Your task to perform on an android device: open app "Nova Launcher" (install if not already installed) Image 0: 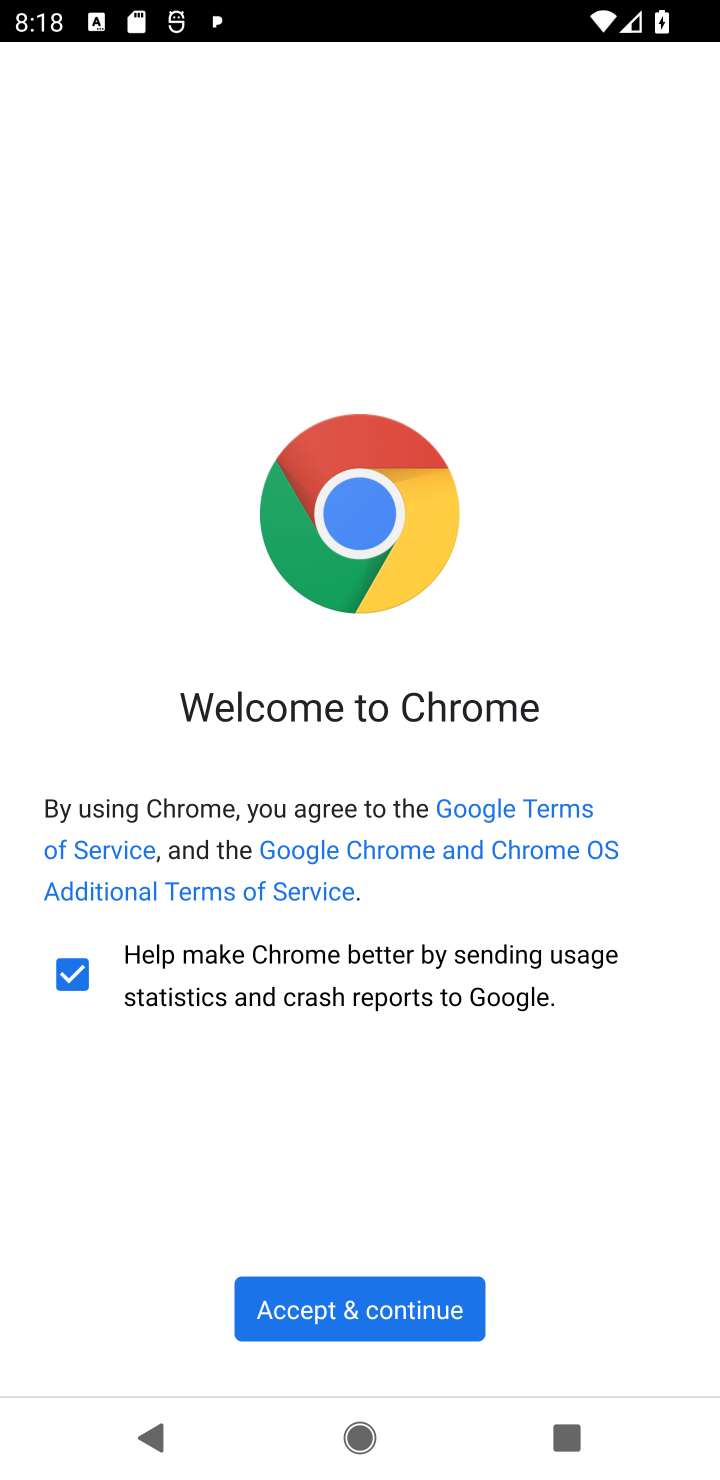
Step 0: press home button
Your task to perform on an android device: open app "Nova Launcher" (install if not already installed) Image 1: 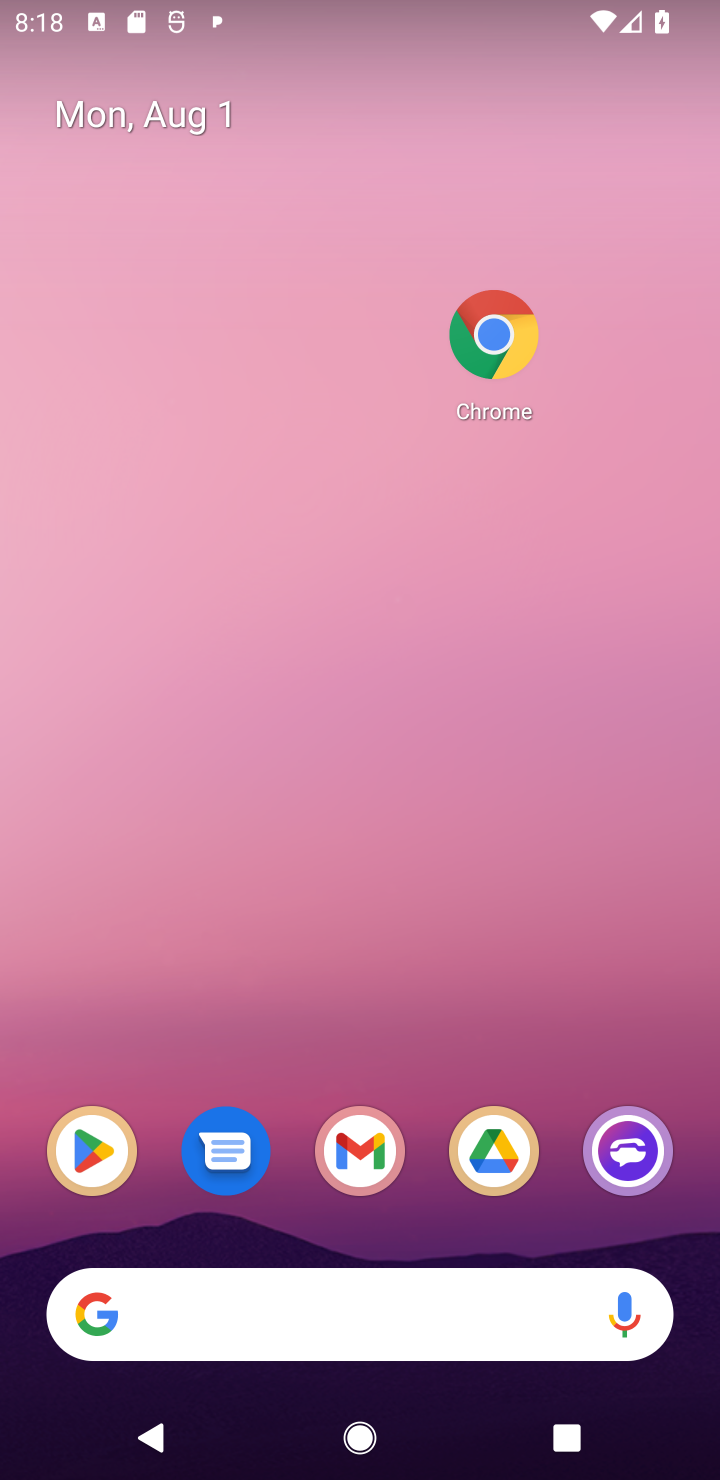
Step 1: click (103, 1155)
Your task to perform on an android device: open app "Nova Launcher" (install if not already installed) Image 2: 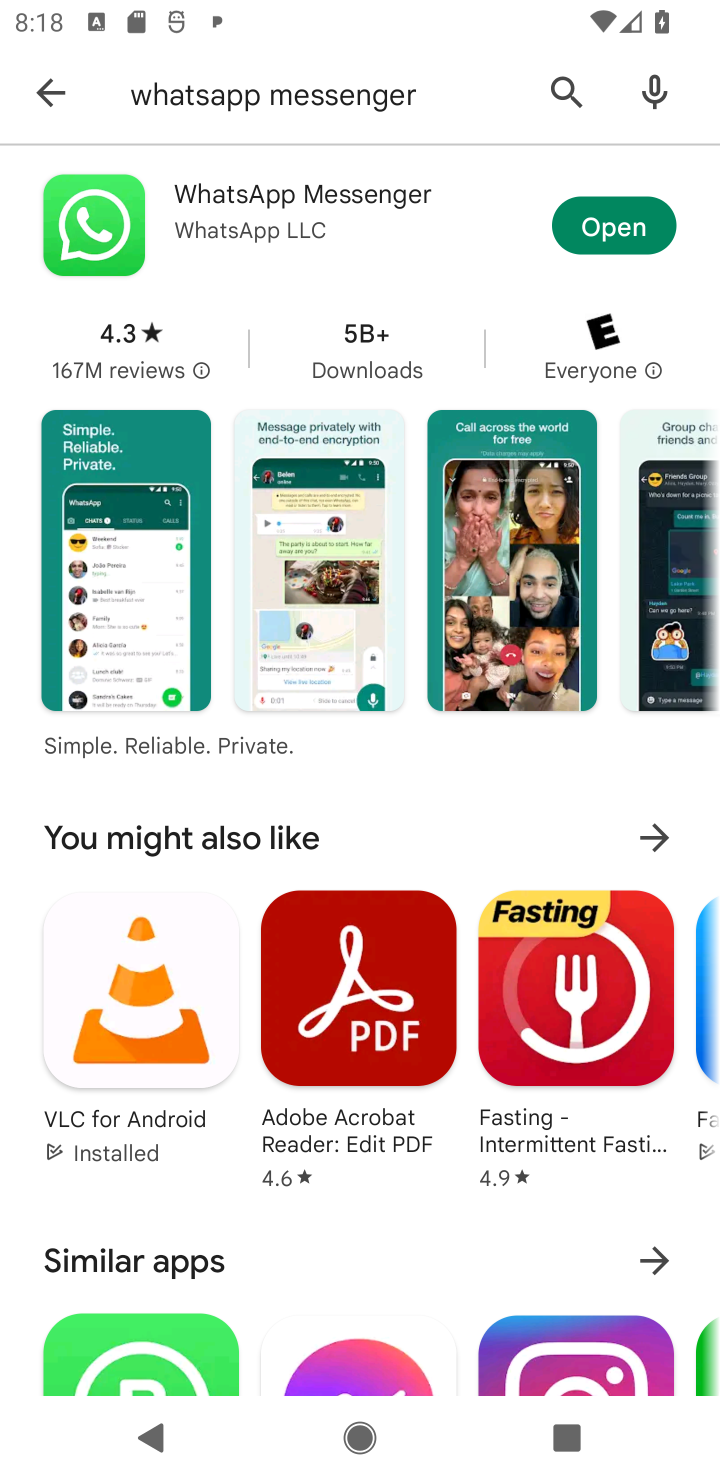
Step 2: click (579, 113)
Your task to perform on an android device: open app "Nova Launcher" (install if not already installed) Image 3: 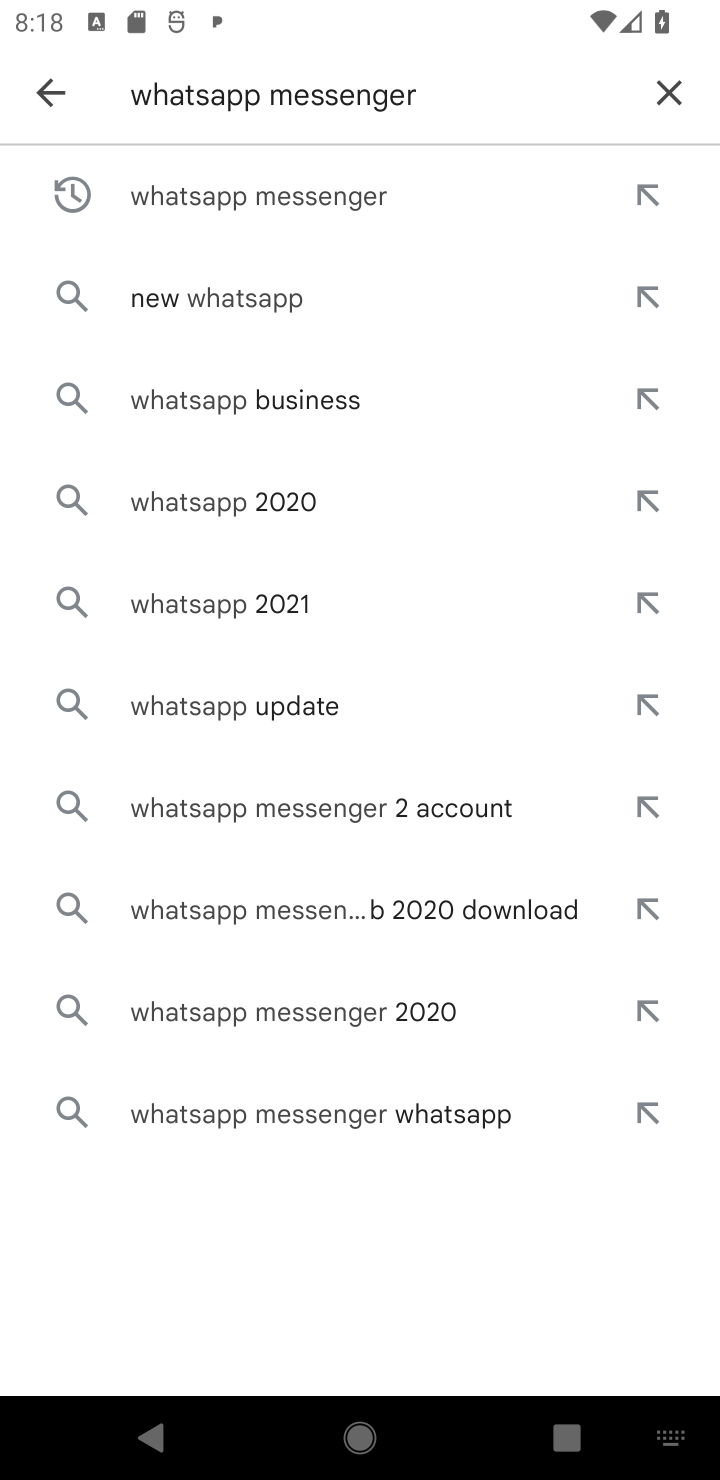
Step 3: click (658, 90)
Your task to perform on an android device: open app "Nova Launcher" (install if not already installed) Image 4: 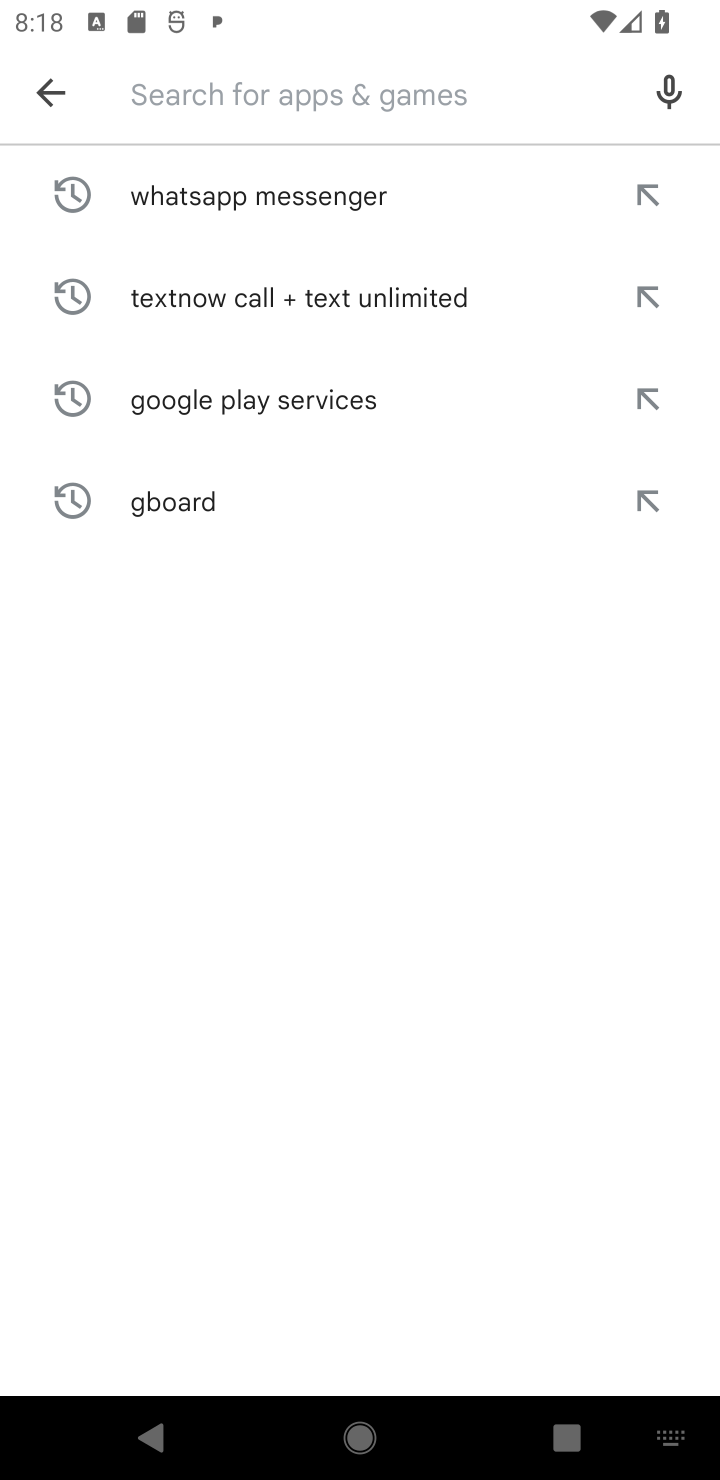
Step 4: type "Nova Launcher"
Your task to perform on an android device: open app "Nova Launcher" (install if not already installed) Image 5: 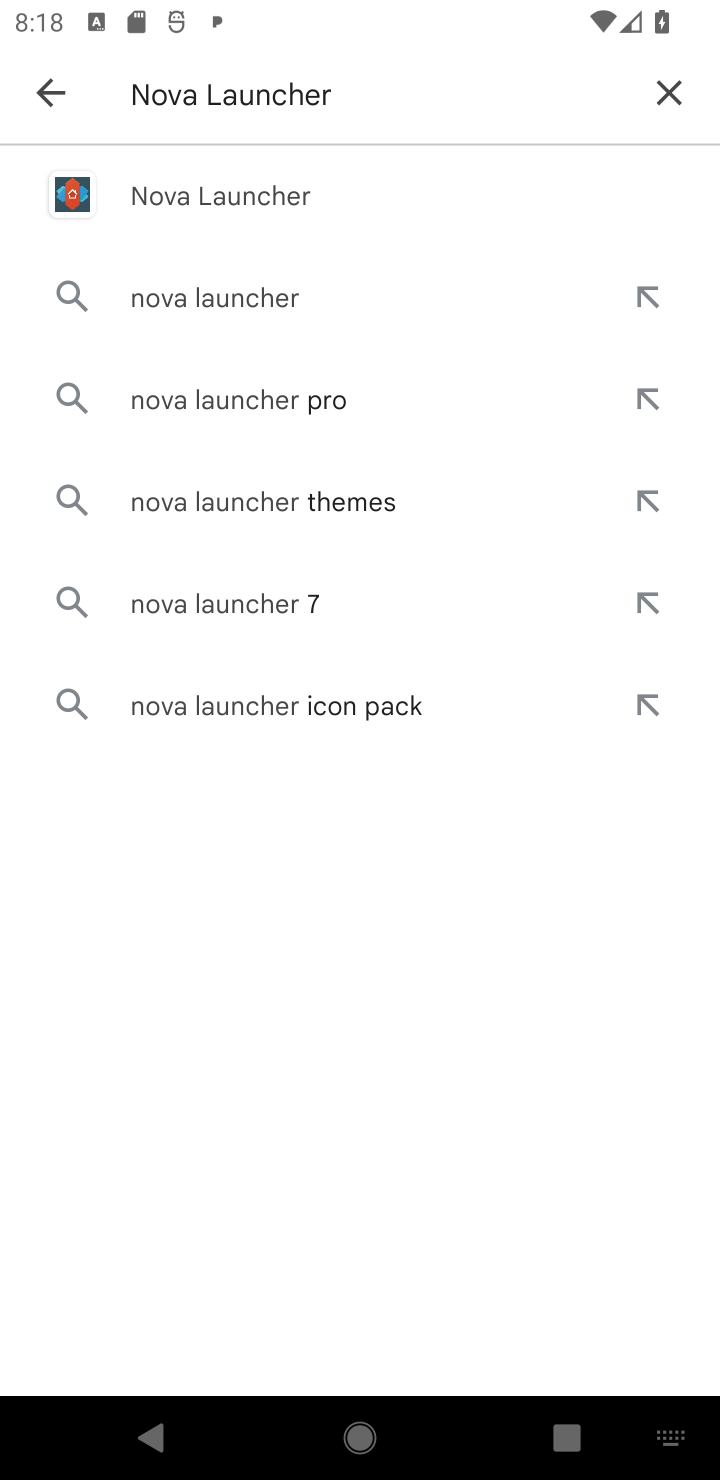
Step 5: click (283, 198)
Your task to perform on an android device: open app "Nova Launcher" (install if not already installed) Image 6: 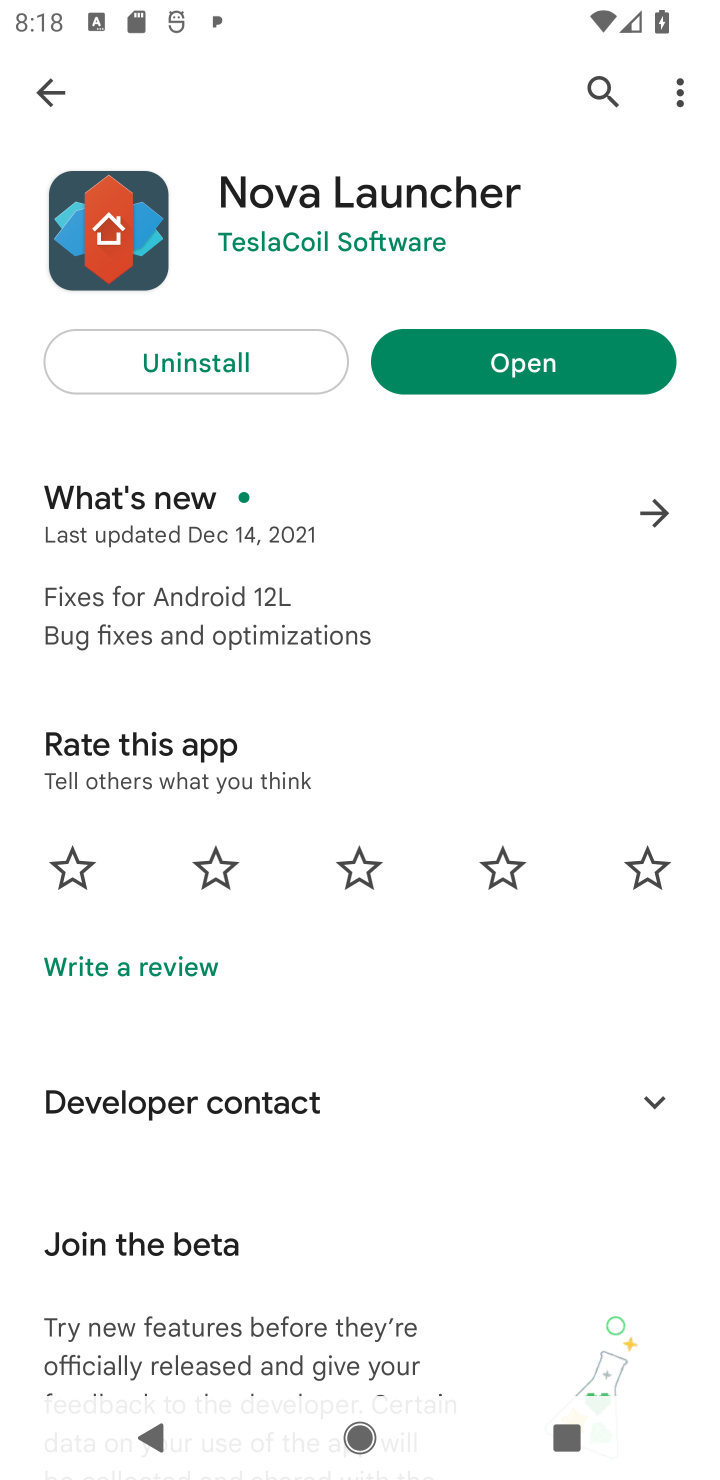
Step 6: click (545, 374)
Your task to perform on an android device: open app "Nova Launcher" (install if not already installed) Image 7: 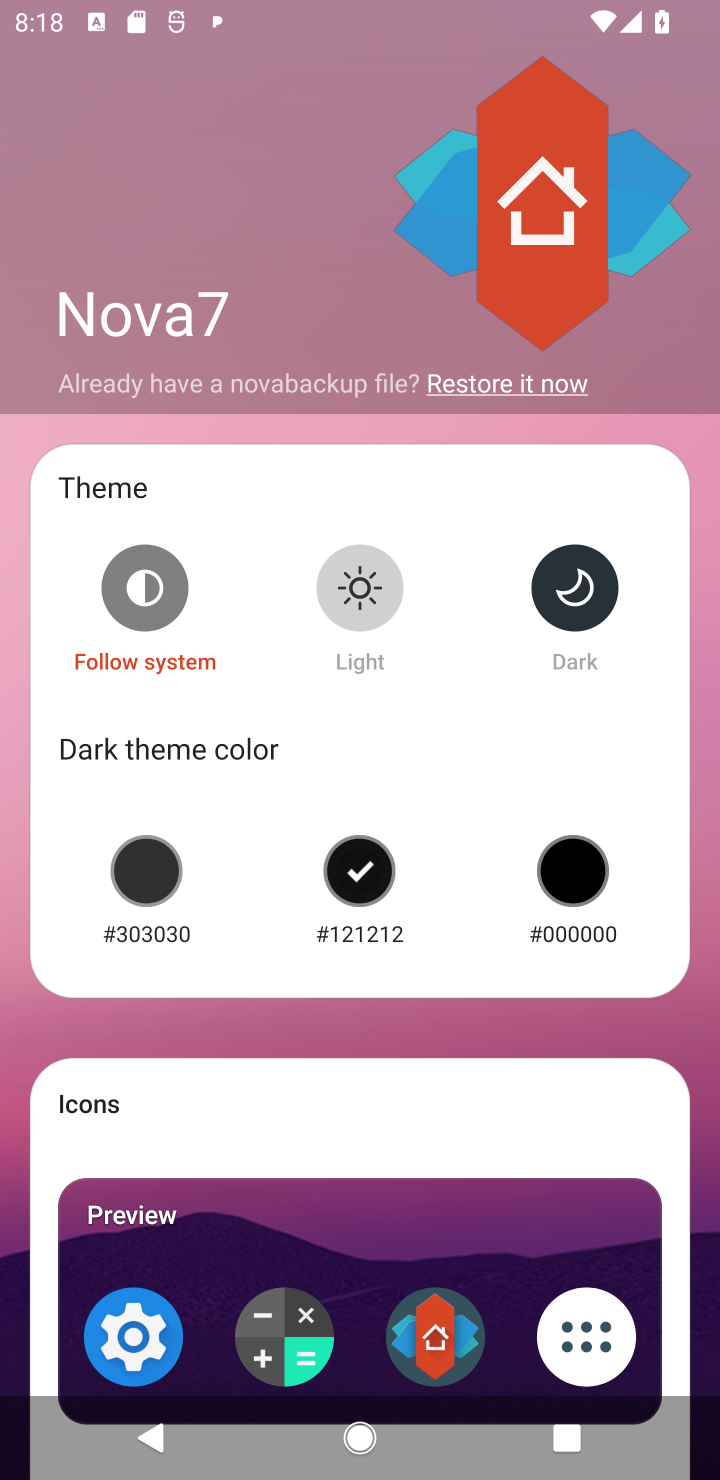
Step 7: task complete